Your task to perform on an android device: Open accessibility settings Image 0: 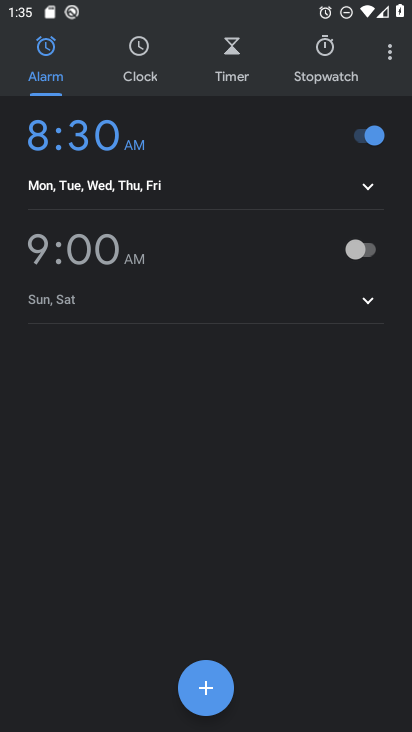
Step 0: press home button
Your task to perform on an android device: Open accessibility settings Image 1: 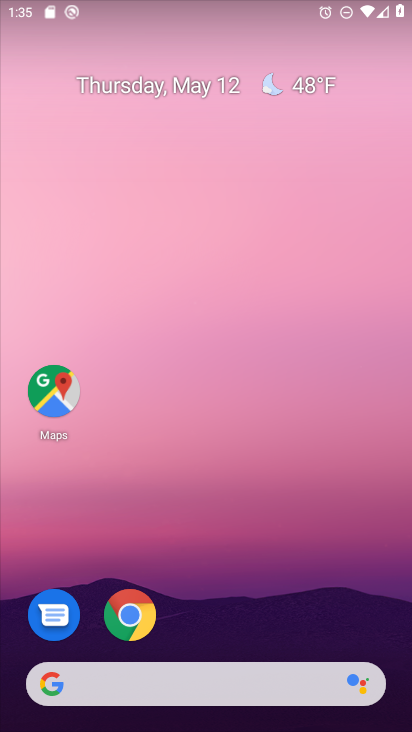
Step 1: drag from (218, 680) to (235, 113)
Your task to perform on an android device: Open accessibility settings Image 2: 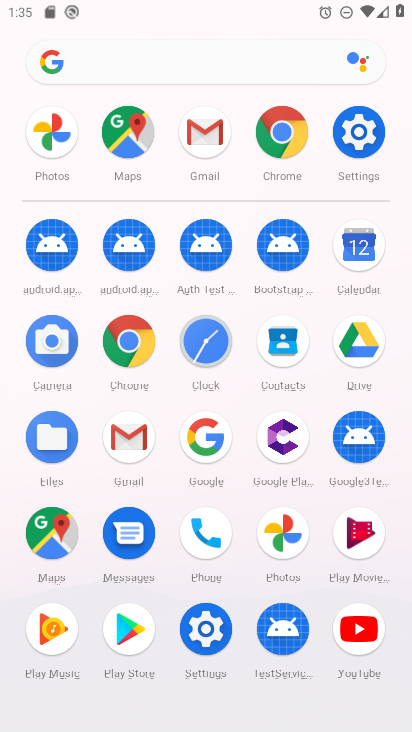
Step 2: click (357, 148)
Your task to perform on an android device: Open accessibility settings Image 3: 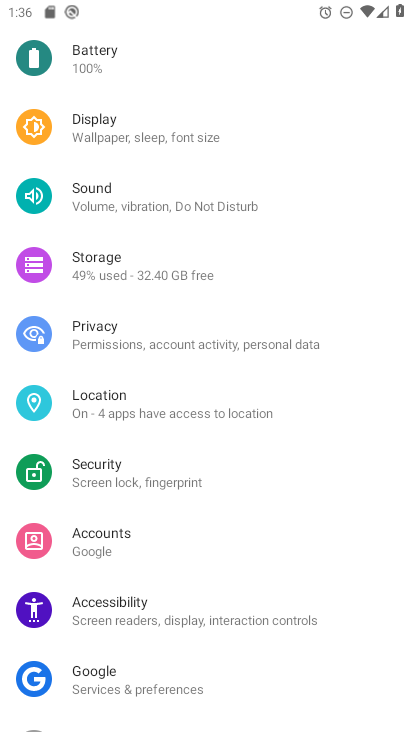
Step 3: click (171, 624)
Your task to perform on an android device: Open accessibility settings Image 4: 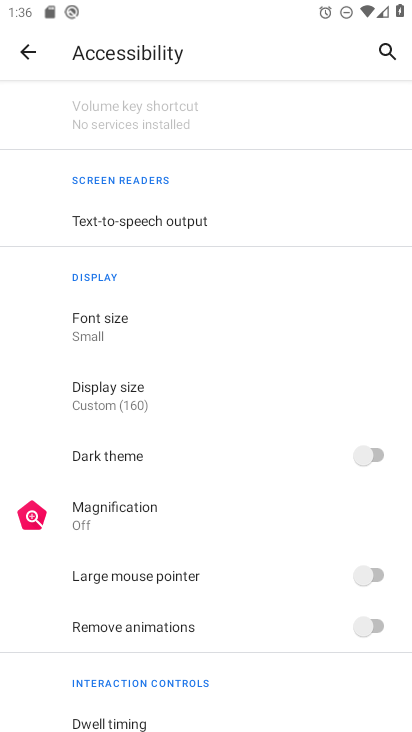
Step 4: task complete